Your task to perform on an android device: add a contact in the contacts app Image 0: 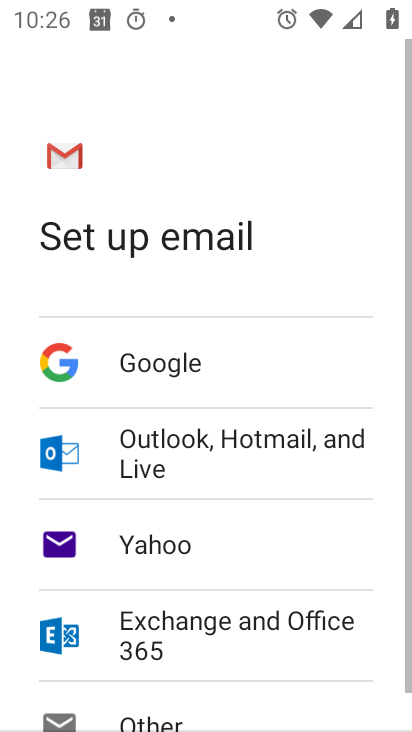
Step 0: press home button
Your task to perform on an android device: add a contact in the contacts app Image 1: 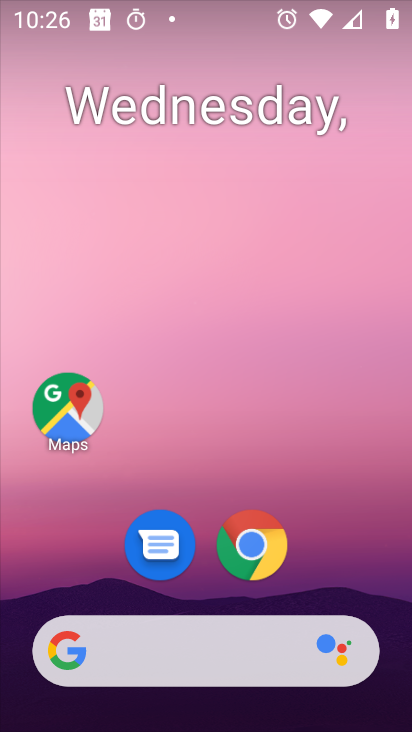
Step 1: drag from (190, 645) to (267, 80)
Your task to perform on an android device: add a contact in the contacts app Image 2: 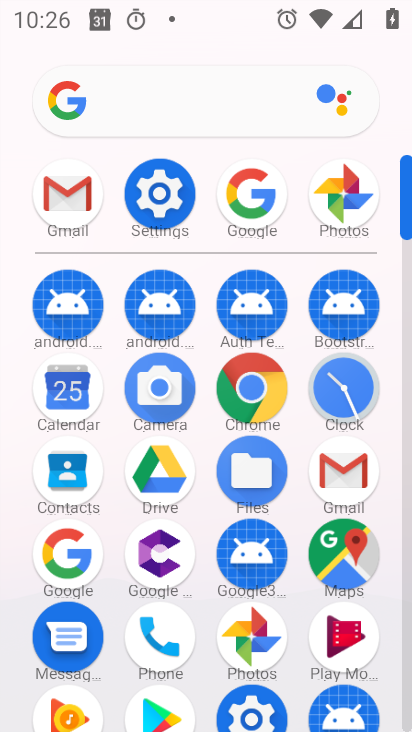
Step 2: click (75, 490)
Your task to perform on an android device: add a contact in the contacts app Image 3: 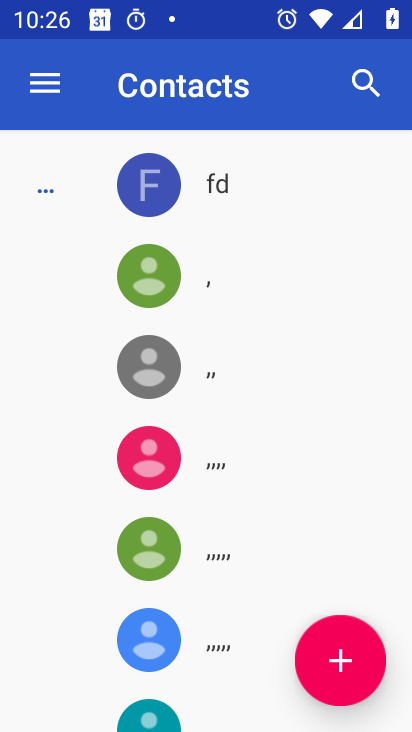
Step 3: click (334, 660)
Your task to perform on an android device: add a contact in the contacts app Image 4: 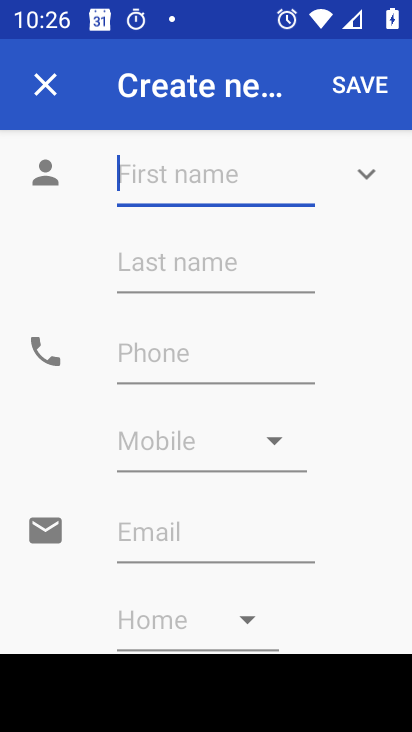
Step 4: click (164, 175)
Your task to perform on an android device: add a contact in the contacts app Image 5: 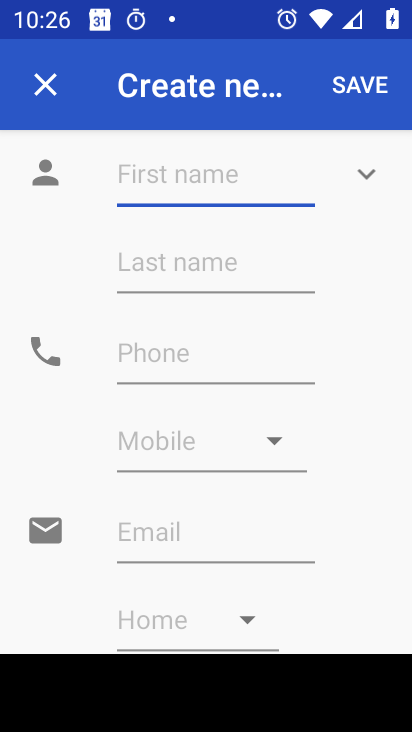
Step 5: type "shyrgfjd"
Your task to perform on an android device: add a contact in the contacts app Image 6: 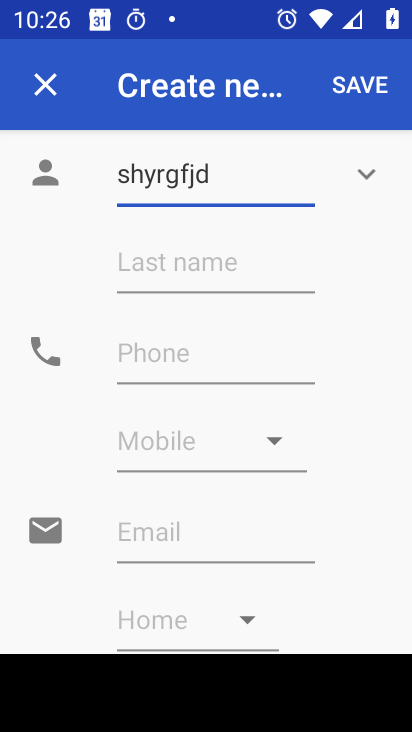
Step 6: click (145, 361)
Your task to perform on an android device: add a contact in the contacts app Image 7: 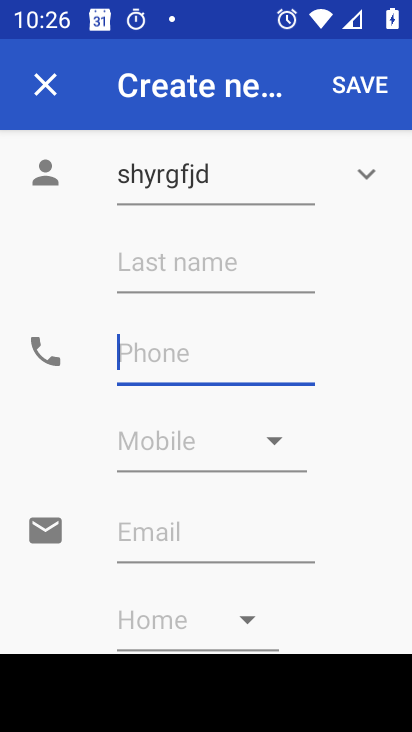
Step 7: type "284466"
Your task to perform on an android device: add a contact in the contacts app Image 8: 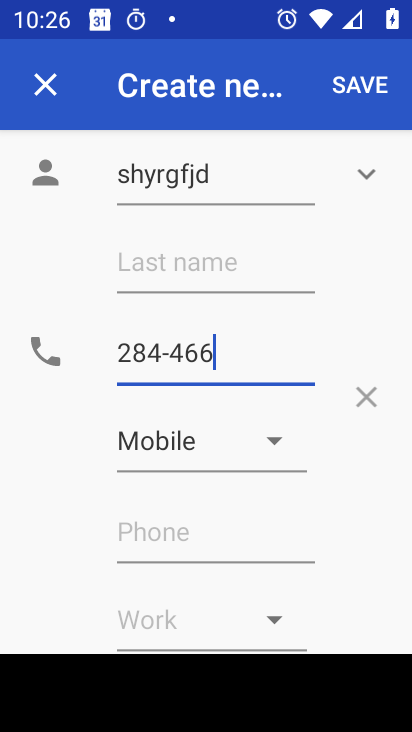
Step 8: click (367, 87)
Your task to perform on an android device: add a contact in the contacts app Image 9: 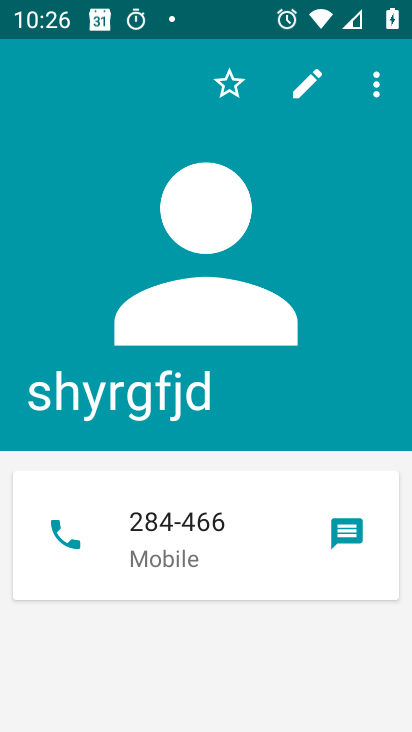
Step 9: task complete